Your task to perform on an android device: turn off picture-in-picture Image 0: 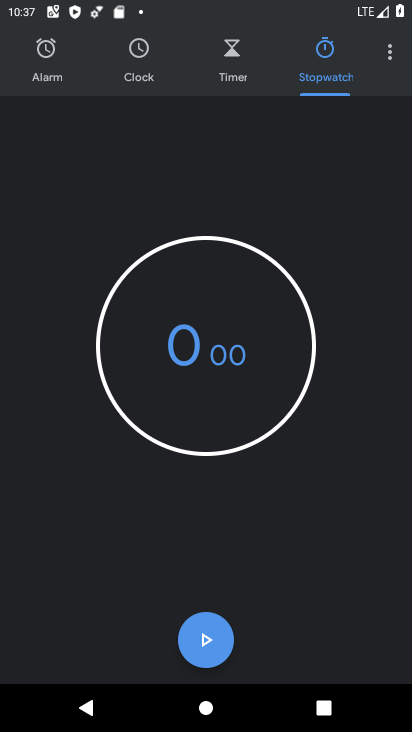
Step 0: press home button
Your task to perform on an android device: turn off picture-in-picture Image 1: 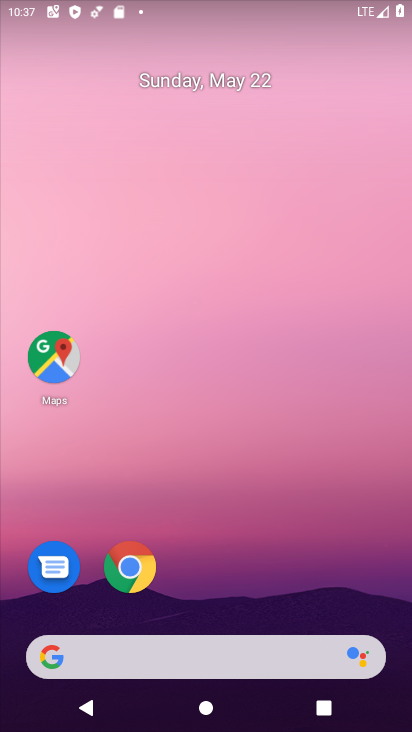
Step 1: drag from (384, 609) to (314, 49)
Your task to perform on an android device: turn off picture-in-picture Image 2: 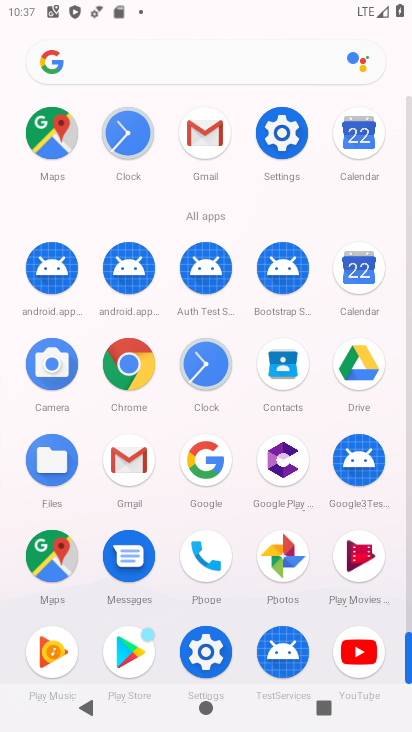
Step 2: click (205, 649)
Your task to perform on an android device: turn off picture-in-picture Image 3: 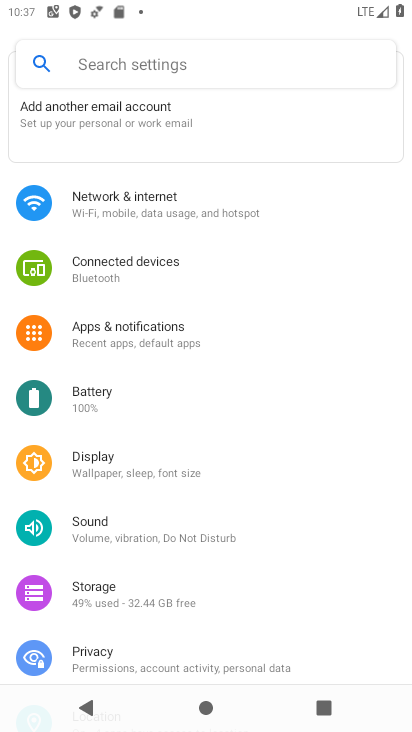
Step 3: click (126, 334)
Your task to perform on an android device: turn off picture-in-picture Image 4: 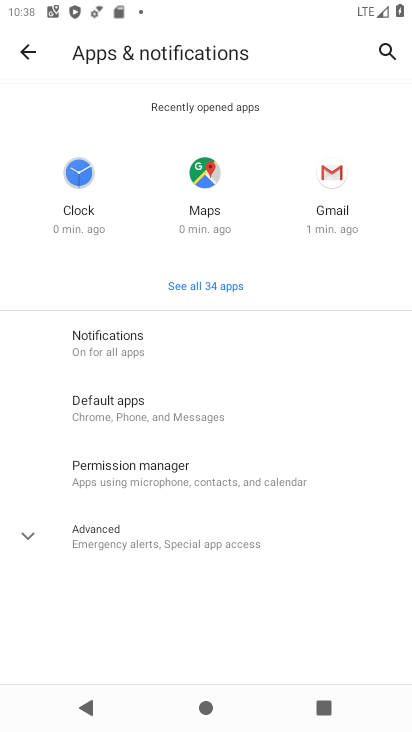
Step 4: click (23, 533)
Your task to perform on an android device: turn off picture-in-picture Image 5: 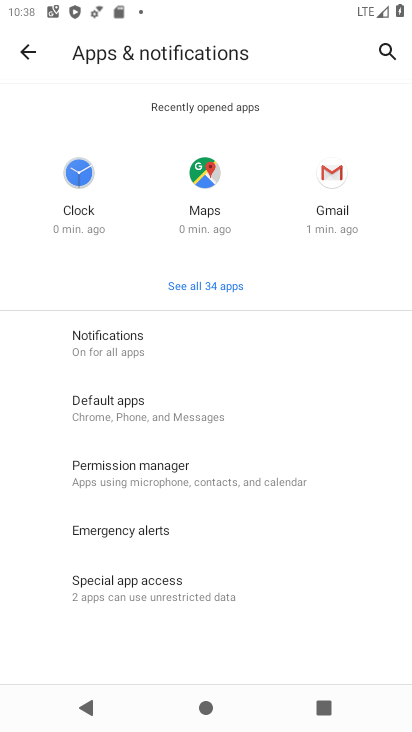
Step 5: click (122, 580)
Your task to perform on an android device: turn off picture-in-picture Image 6: 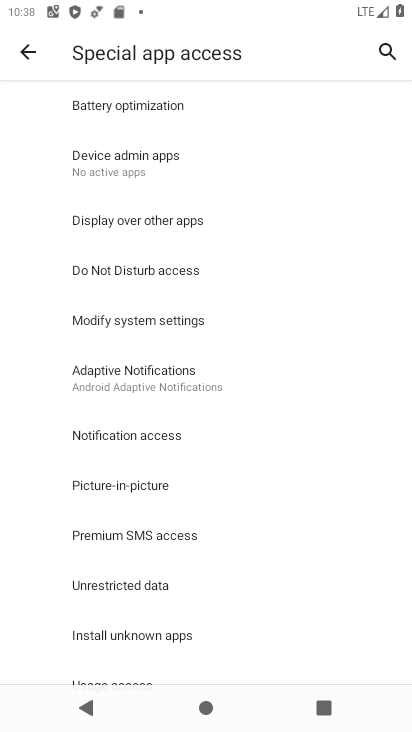
Step 6: click (108, 478)
Your task to perform on an android device: turn off picture-in-picture Image 7: 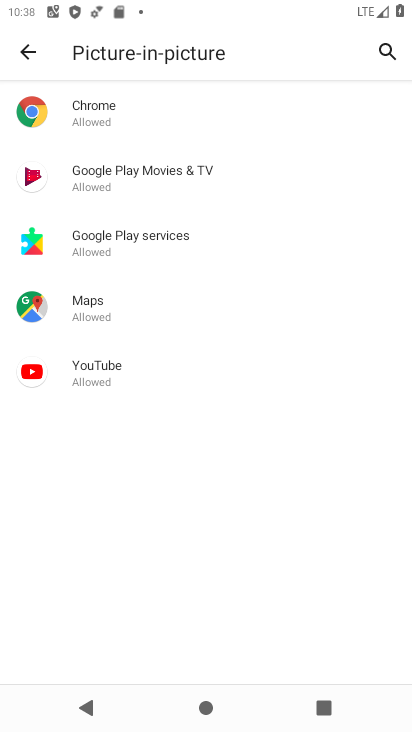
Step 7: click (86, 370)
Your task to perform on an android device: turn off picture-in-picture Image 8: 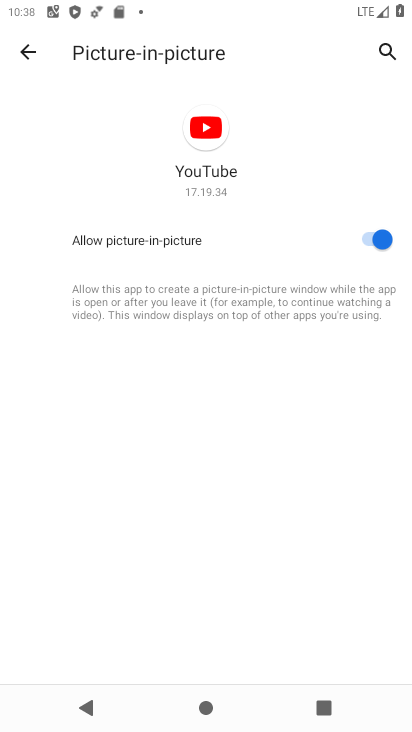
Step 8: click (361, 240)
Your task to perform on an android device: turn off picture-in-picture Image 9: 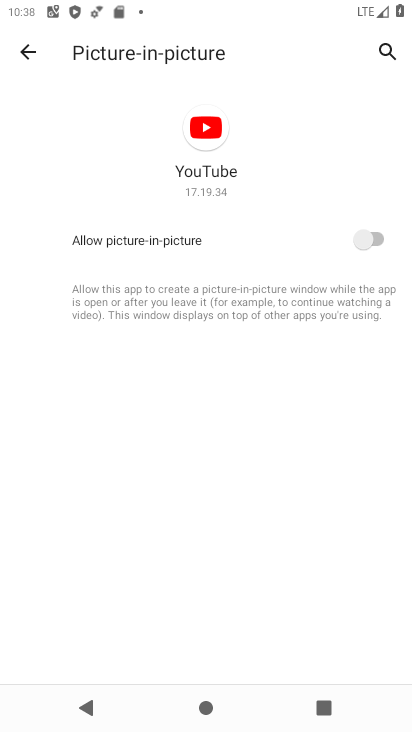
Step 9: task complete